Your task to perform on an android device: search for starred emails in the gmail app Image 0: 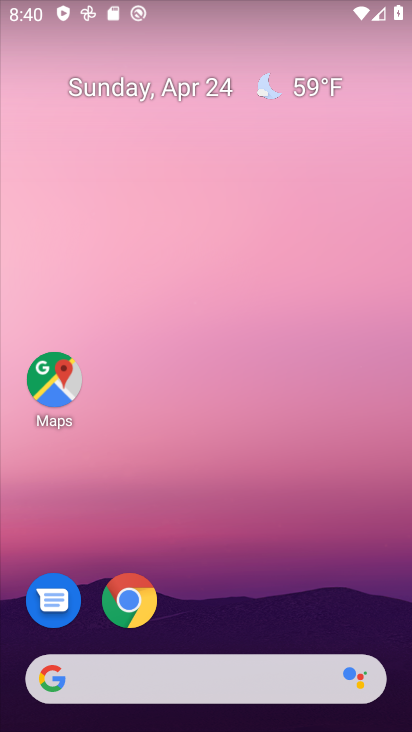
Step 0: drag from (204, 725) to (188, 90)
Your task to perform on an android device: search for starred emails in the gmail app Image 1: 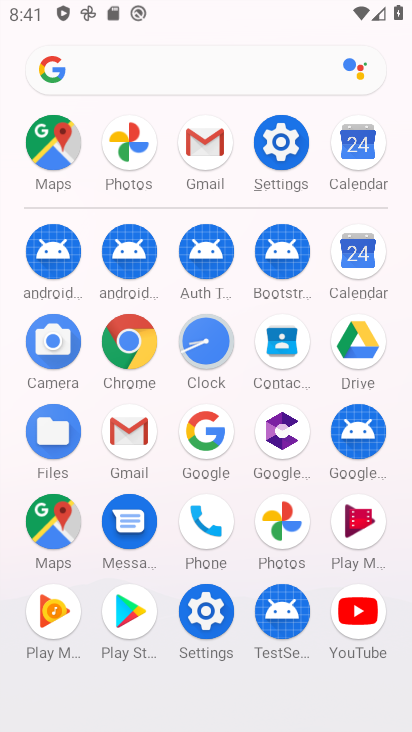
Step 1: click (132, 426)
Your task to perform on an android device: search for starred emails in the gmail app Image 2: 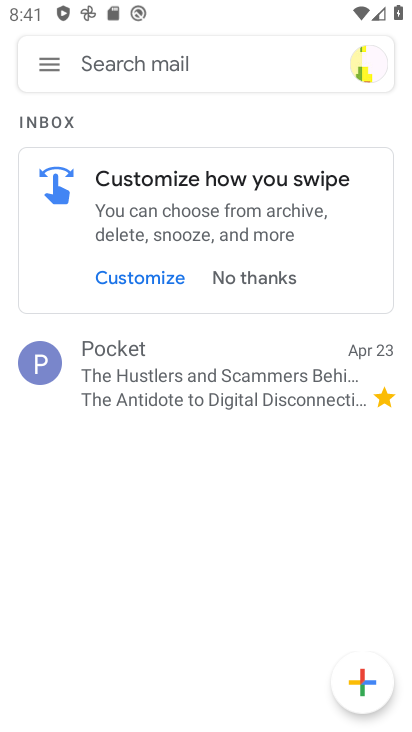
Step 2: click (52, 67)
Your task to perform on an android device: search for starred emails in the gmail app Image 3: 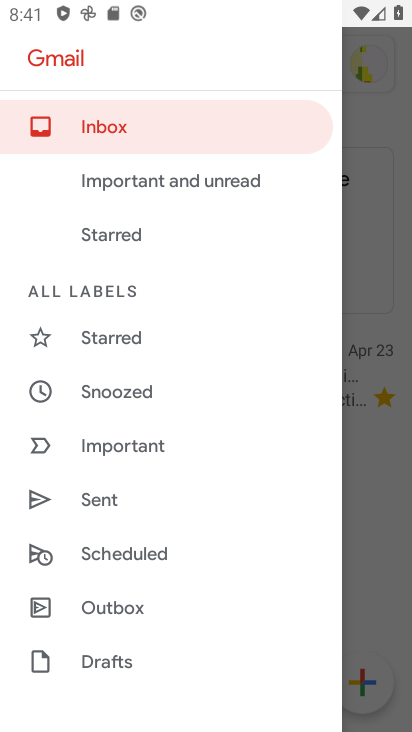
Step 3: click (124, 334)
Your task to perform on an android device: search for starred emails in the gmail app Image 4: 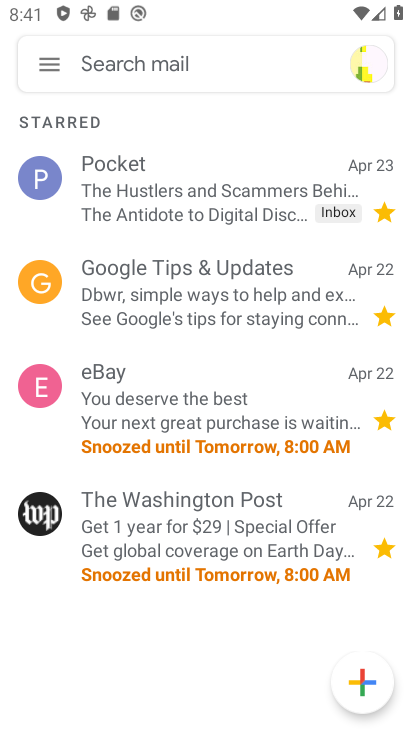
Step 4: task complete